Your task to perform on an android device: star an email in the gmail app Image 0: 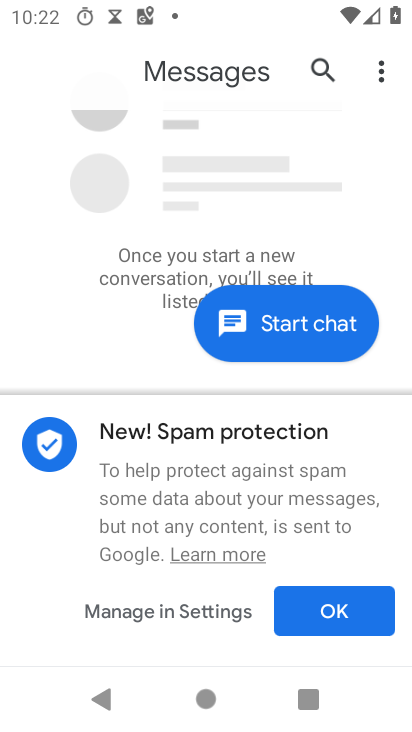
Step 0: press home button
Your task to perform on an android device: star an email in the gmail app Image 1: 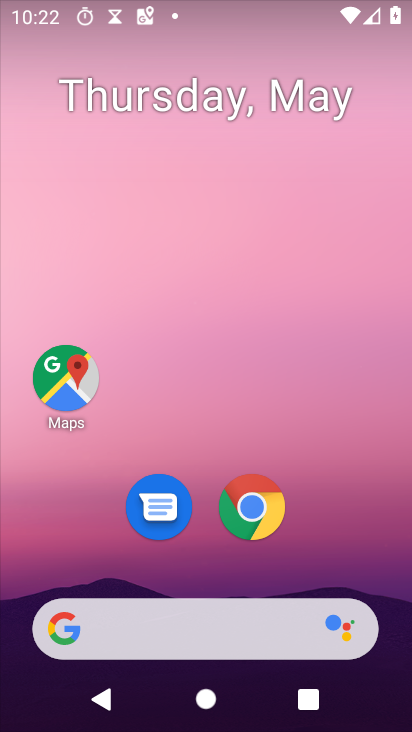
Step 1: drag from (165, 715) to (184, 61)
Your task to perform on an android device: star an email in the gmail app Image 2: 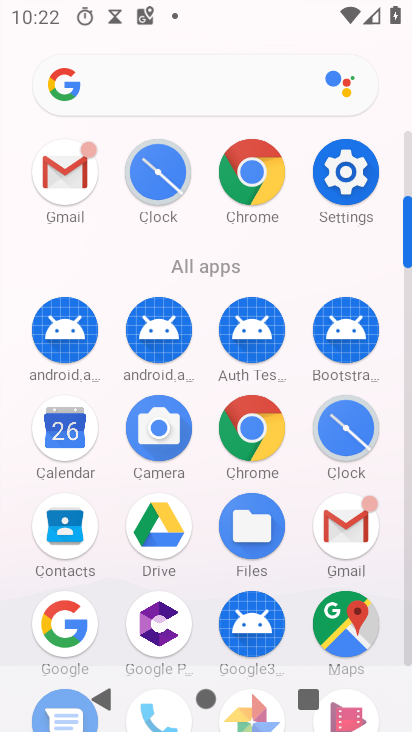
Step 2: click (72, 191)
Your task to perform on an android device: star an email in the gmail app Image 3: 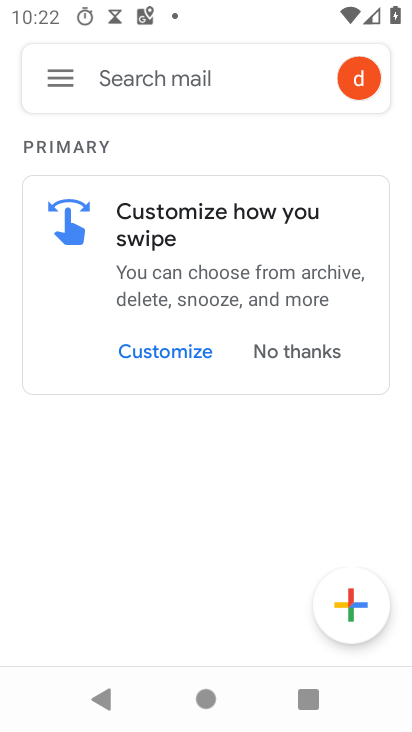
Step 3: click (290, 357)
Your task to perform on an android device: star an email in the gmail app Image 4: 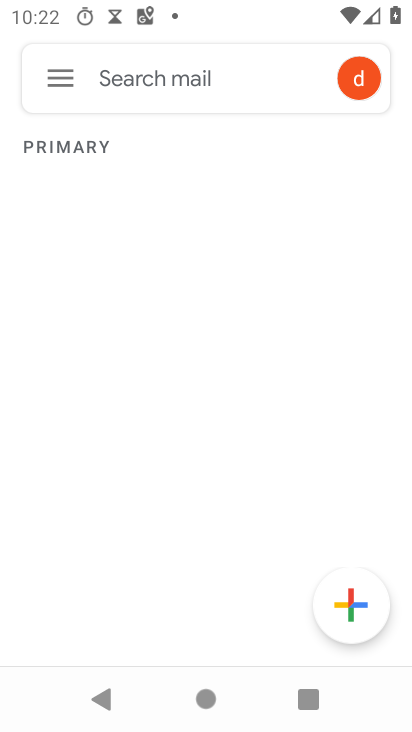
Step 4: click (51, 74)
Your task to perform on an android device: star an email in the gmail app Image 5: 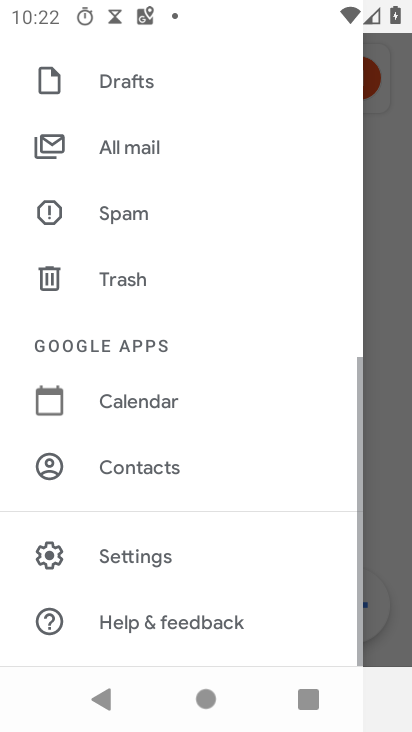
Step 5: click (153, 148)
Your task to perform on an android device: star an email in the gmail app Image 6: 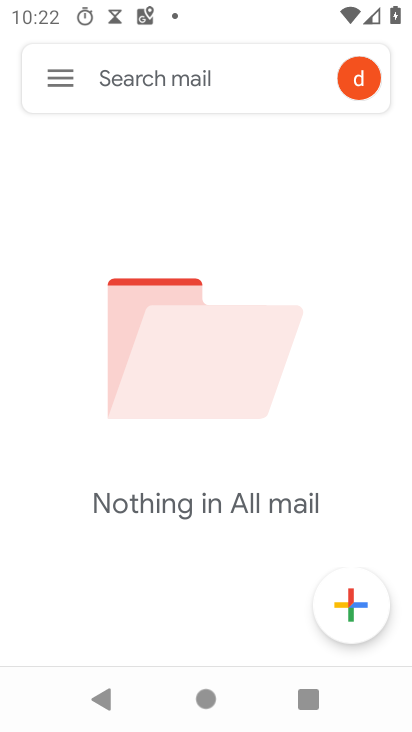
Step 6: click (47, 85)
Your task to perform on an android device: star an email in the gmail app Image 7: 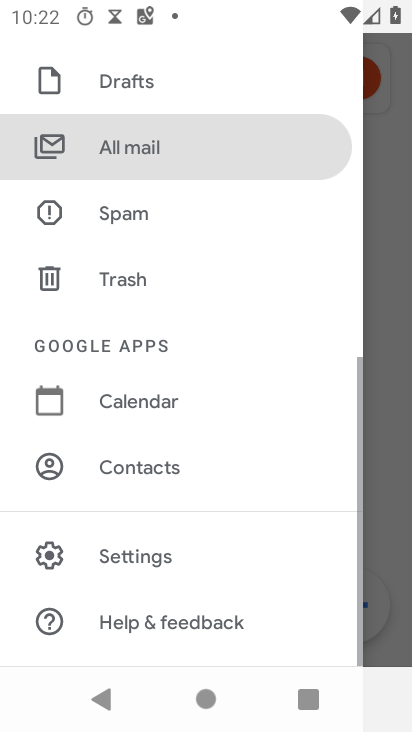
Step 7: drag from (180, 210) to (160, 690)
Your task to perform on an android device: star an email in the gmail app Image 8: 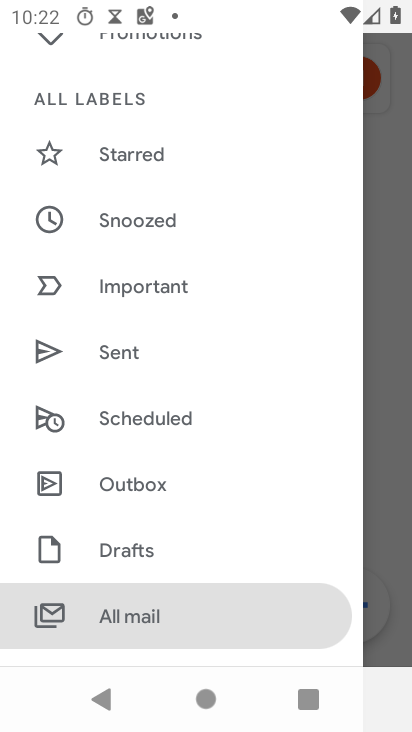
Step 8: drag from (219, 101) to (219, 538)
Your task to perform on an android device: star an email in the gmail app Image 9: 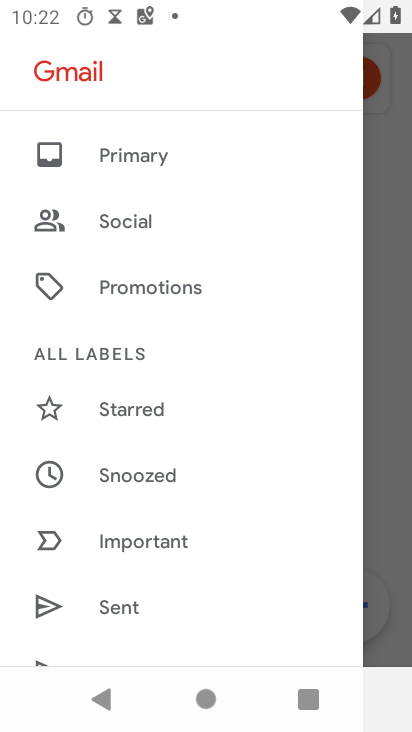
Step 9: click (150, 163)
Your task to perform on an android device: star an email in the gmail app Image 10: 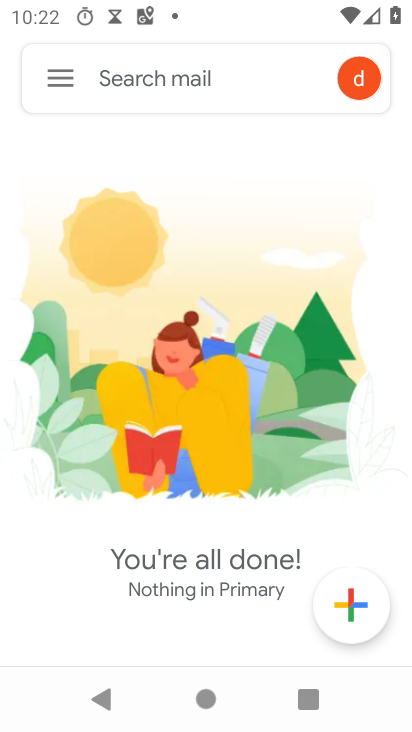
Step 10: click (66, 84)
Your task to perform on an android device: star an email in the gmail app Image 11: 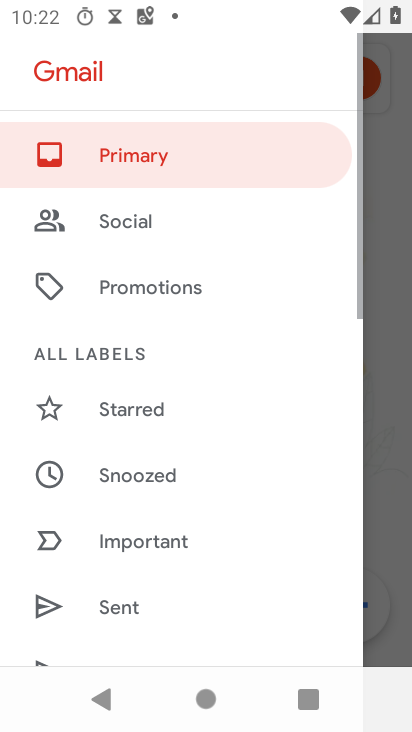
Step 11: drag from (254, 478) to (282, 347)
Your task to perform on an android device: star an email in the gmail app Image 12: 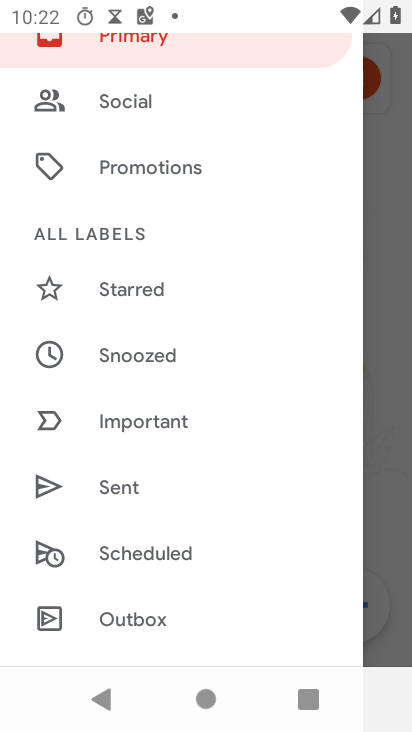
Step 12: click (163, 102)
Your task to perform on an android device: star an email in the gmail app Image 13: 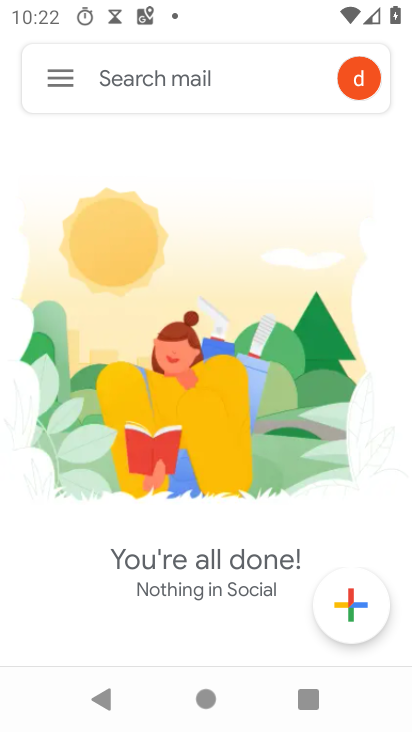
Step 13: click (48, 83)
Your task to perform on an android device: star an email in the gmail app Image 14: 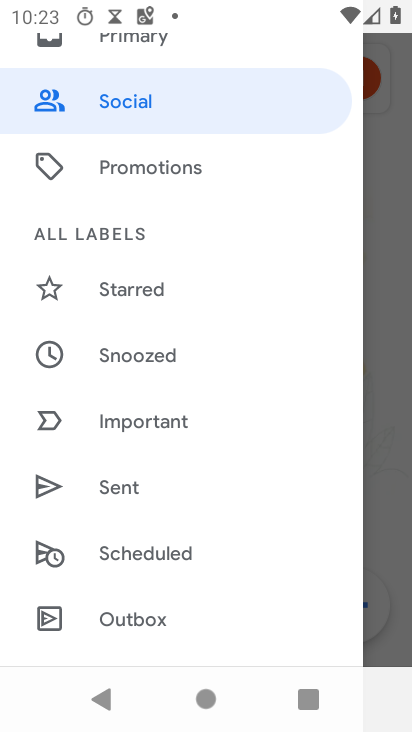
Step 14: task complete